Your task to perform on an android device: open app "Reddit" (install if not already installed), go to login, and select forgot password Image 0: 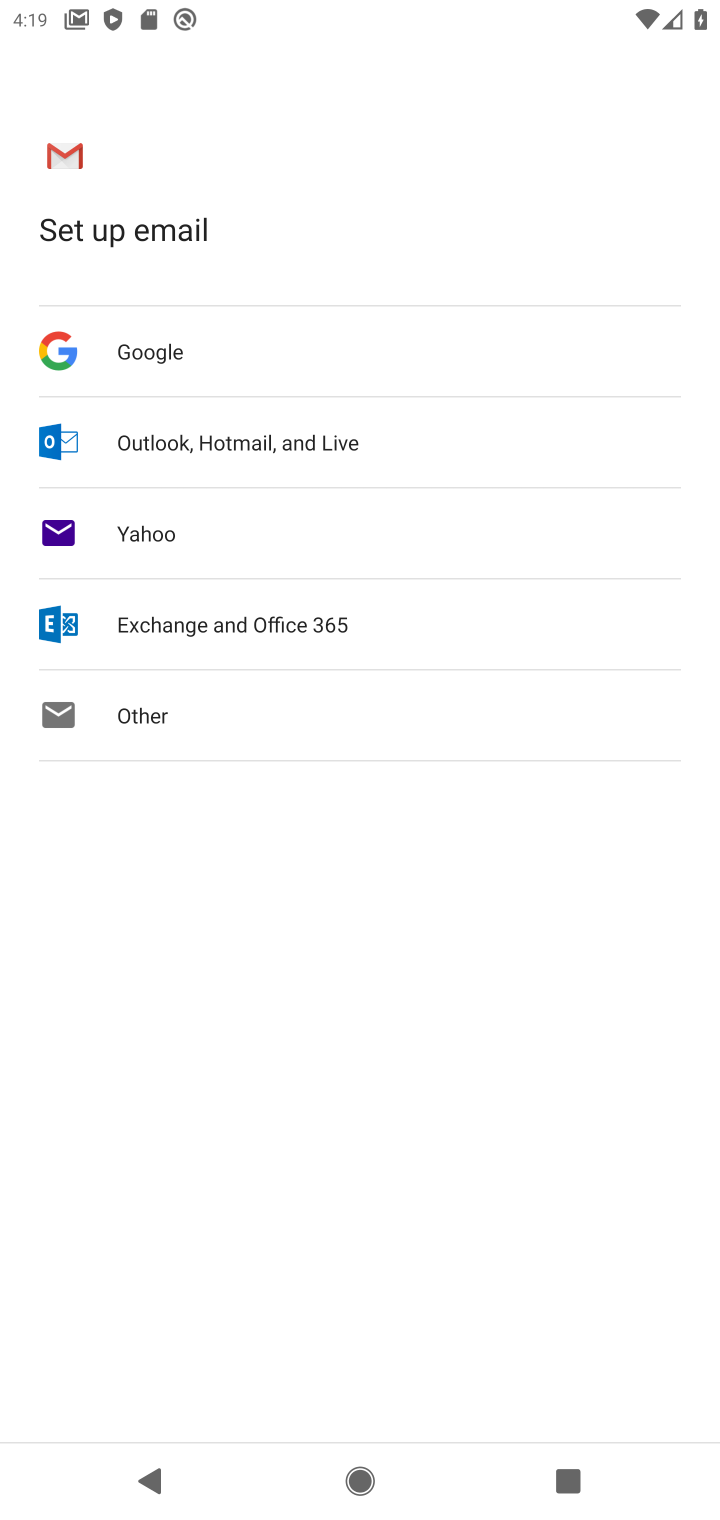
Step 0: press home button
Your task to perform on an android device: open app "Reddit" (install if not already installed), go to login, and select forgot password Image 1: 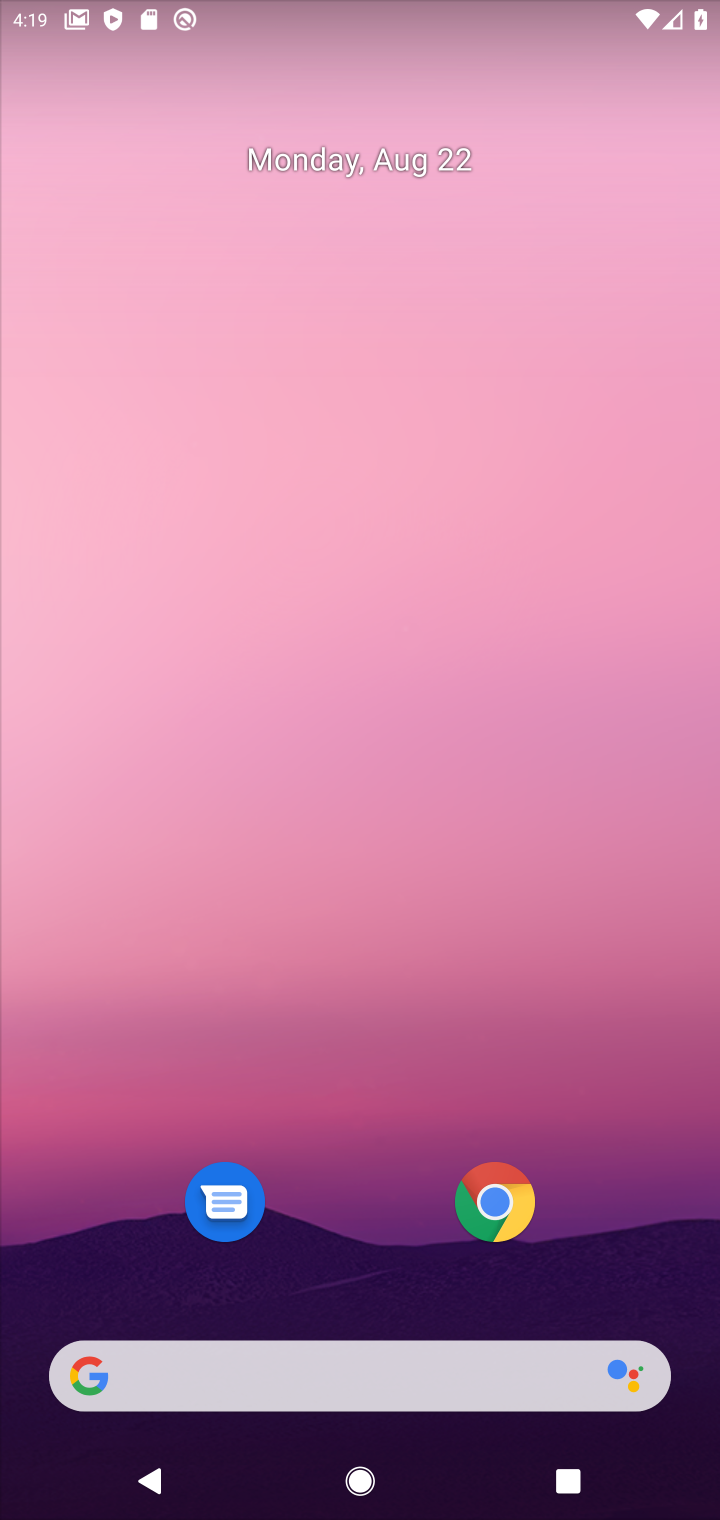
Step 1: drag from (325, 1260) to (438, 198)
Your task to perform on an android device: open app "Reddit" (install if not already installed), go to login, and select forgot password Image 2: 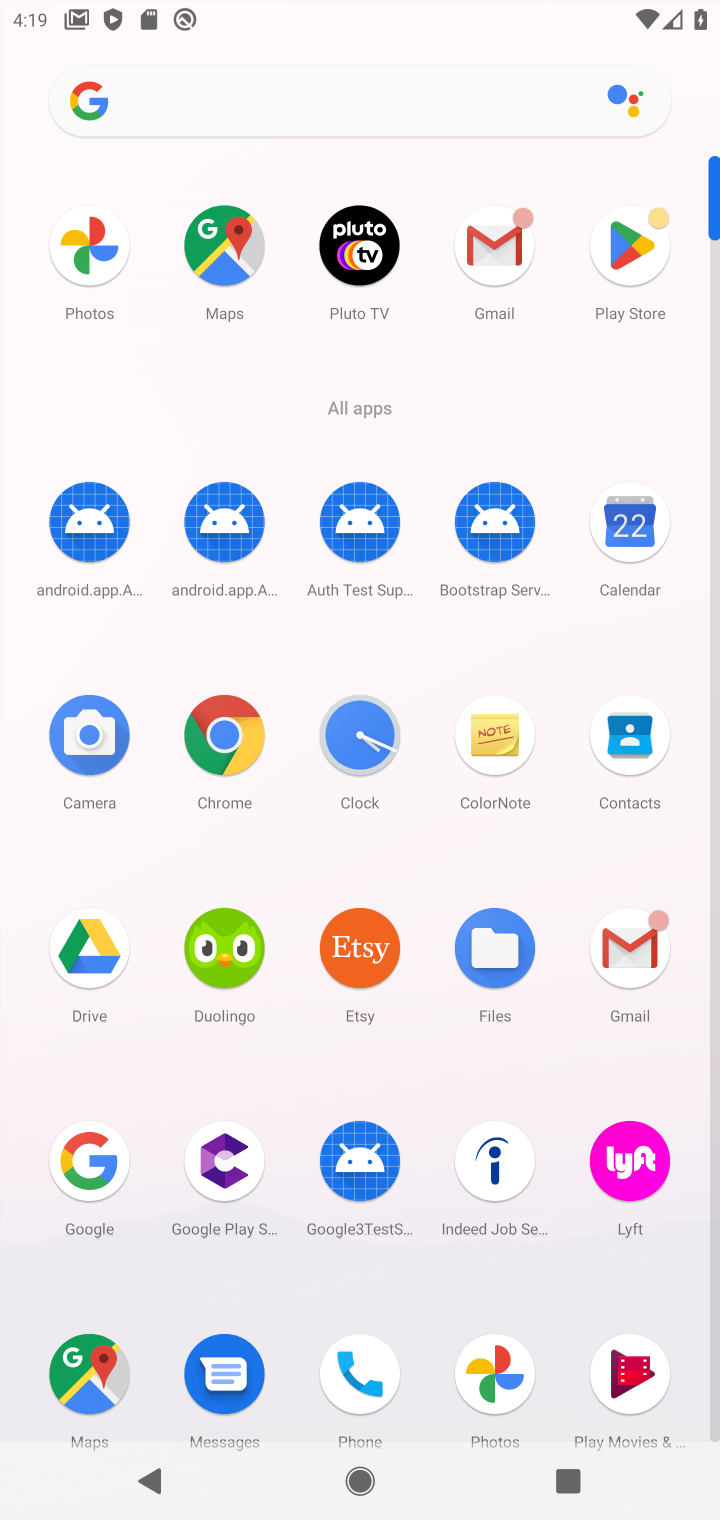
Step 2: click (620, 257)
Your task to perform on an android device: open app "Reddit" (install if not already installed), go to login, and select forgot password Image 3: 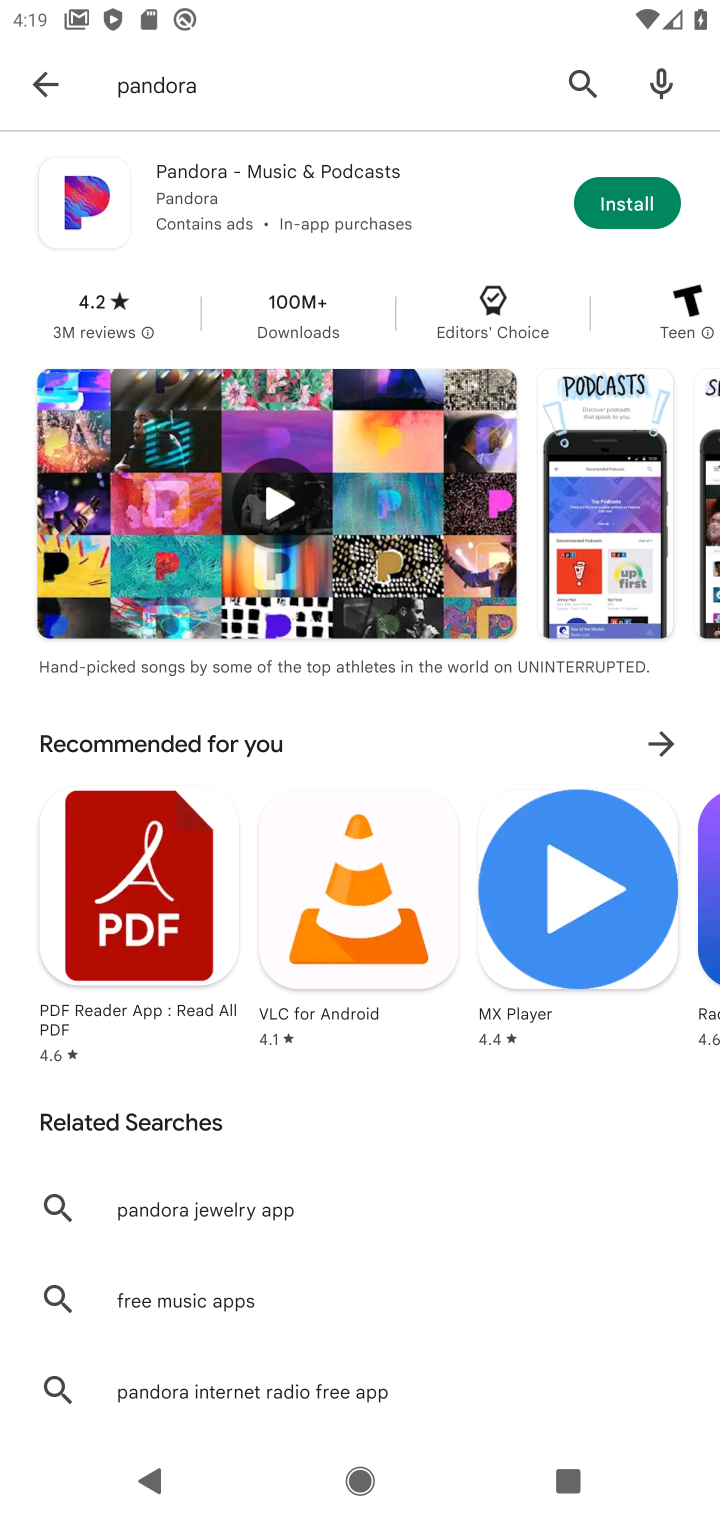
Step 3: click (351, 111)
Your task to perform on an android device: open app "Reddit" (install if not already installed), go to login, and select forgot password Image 4: 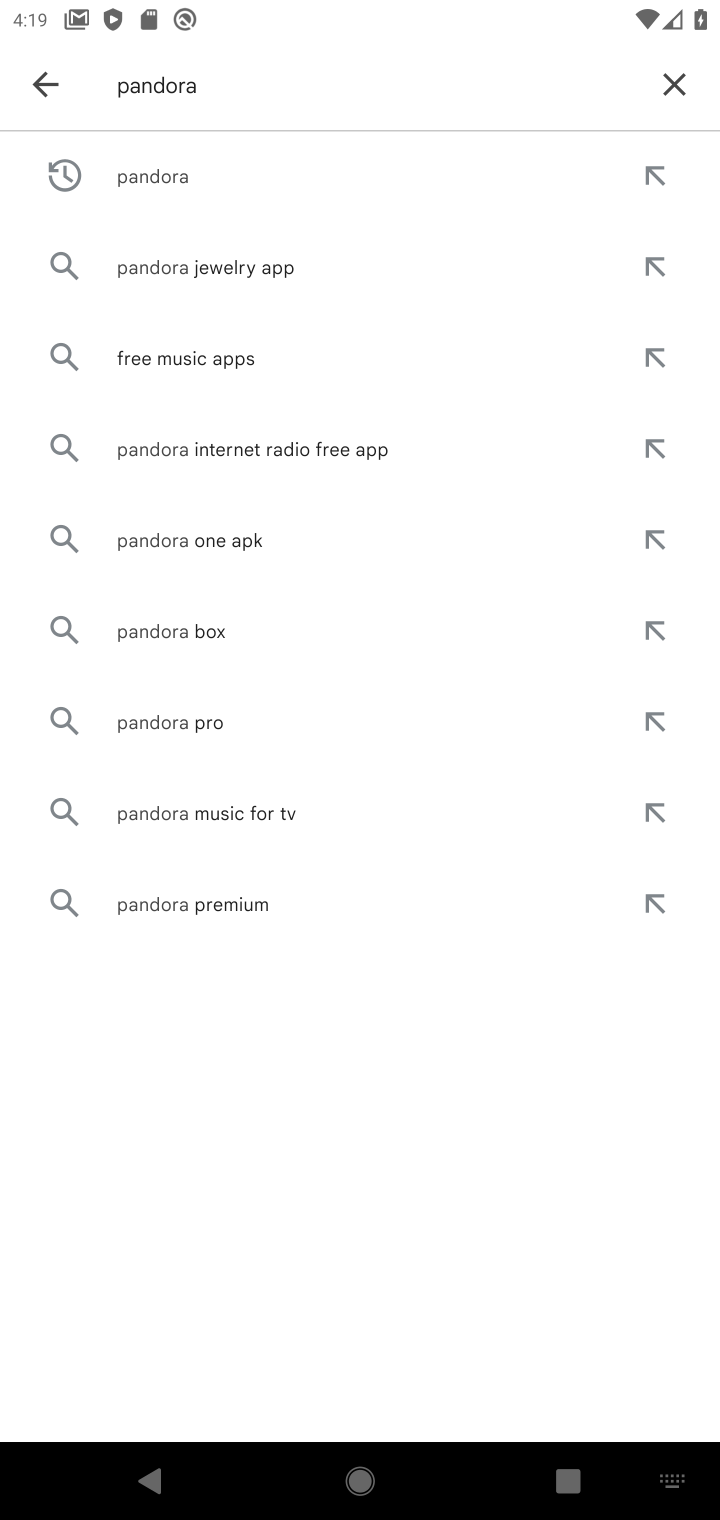
Step 4: click (666, 83)
Your task to perform on an android device: open app "Reddit" (install if not already installed), go to login, and select forgot password Image 5: 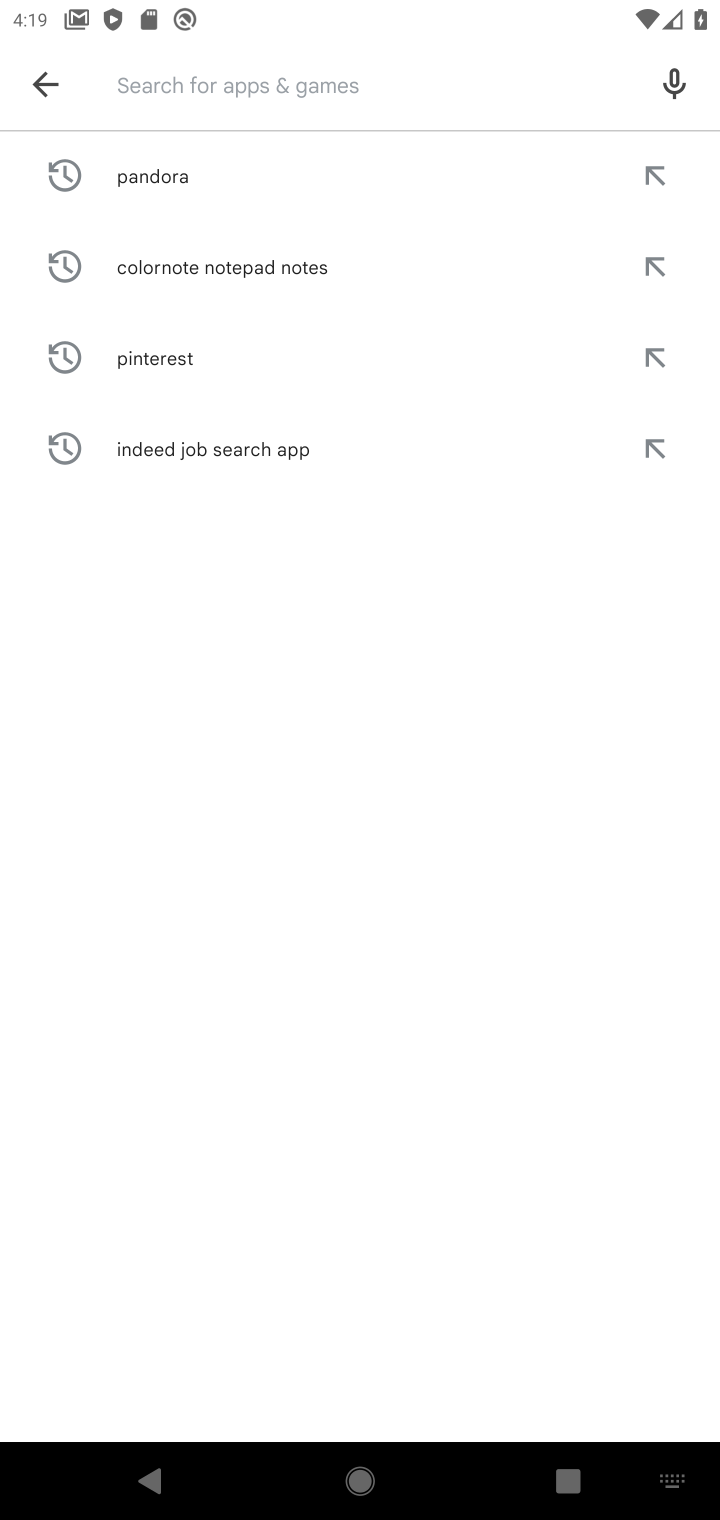
Step 5: type "Reddit"
Your task to perform on an android device: open app "Reddit" (install if not already installed), go to login, and select forgot password Image 6: 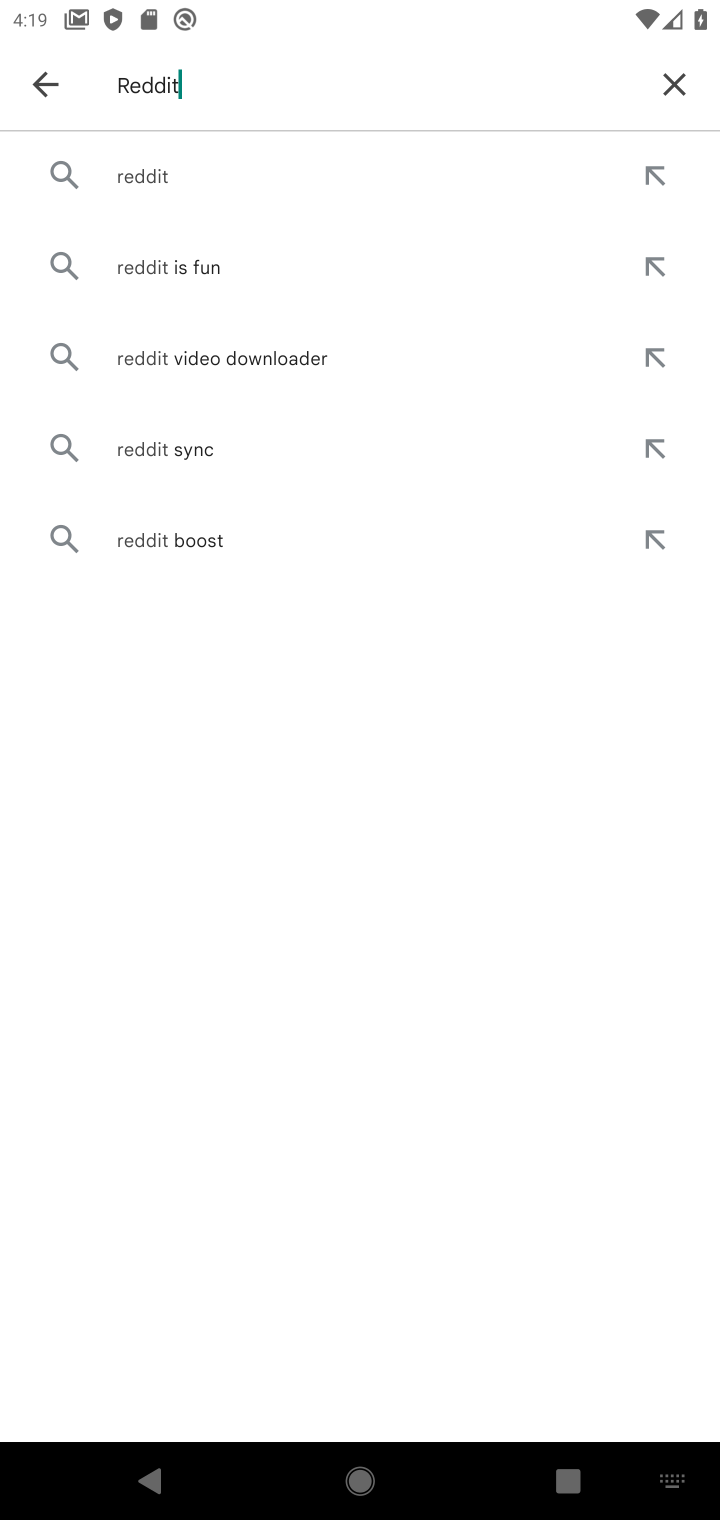
Step 6: click (191, 176)
Your task to perform on an android device: open app "Reddit" (install if not already installed), go to login, and select forgot password Image 7: 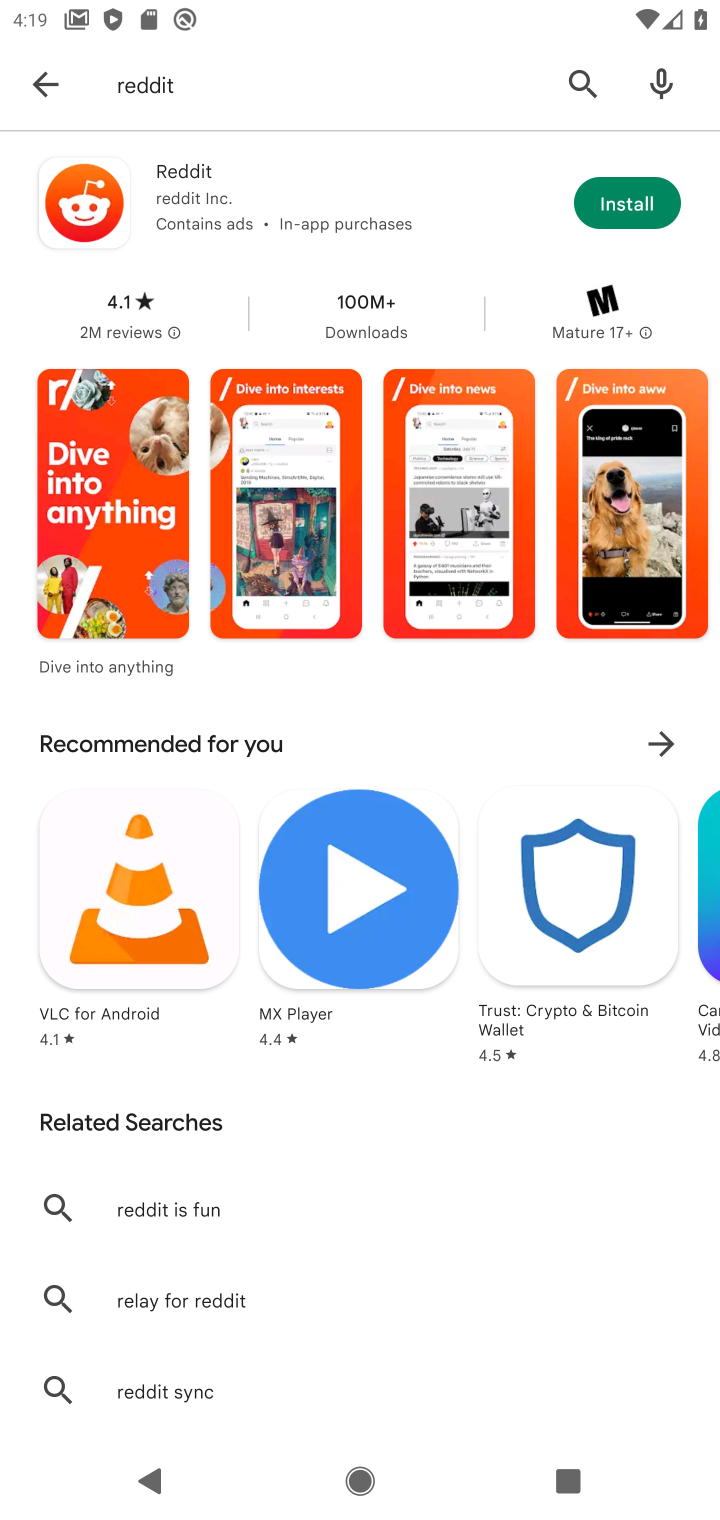
Step 7: click (621, 212)
Your task to perform on an android device: open app "Reddit" (install if not already installed), go to login, and select forgot password Image 8: 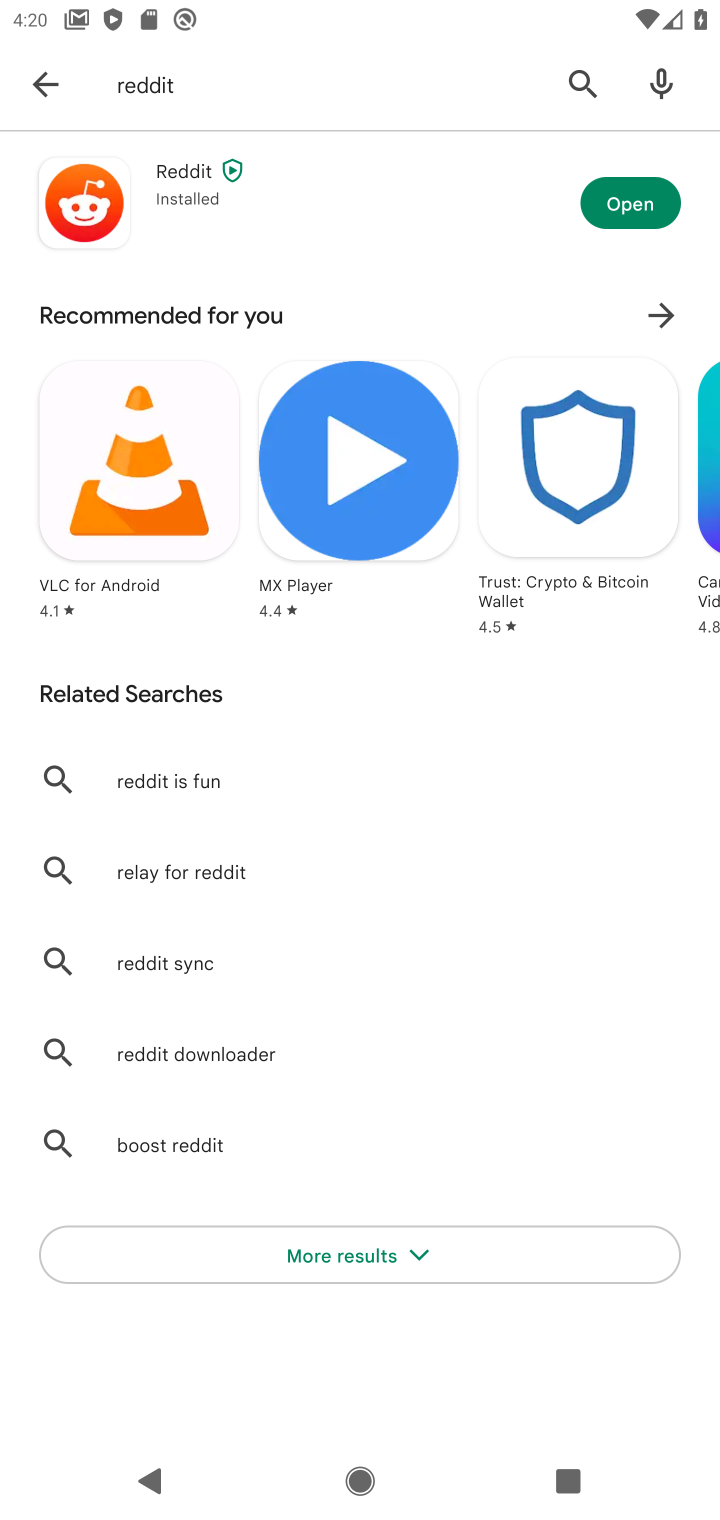
Step 8: click (641, 202)
Your task to perform on an android device: open app "Reddit" (install if not already installed), go to login, and select forgot password Image 9: 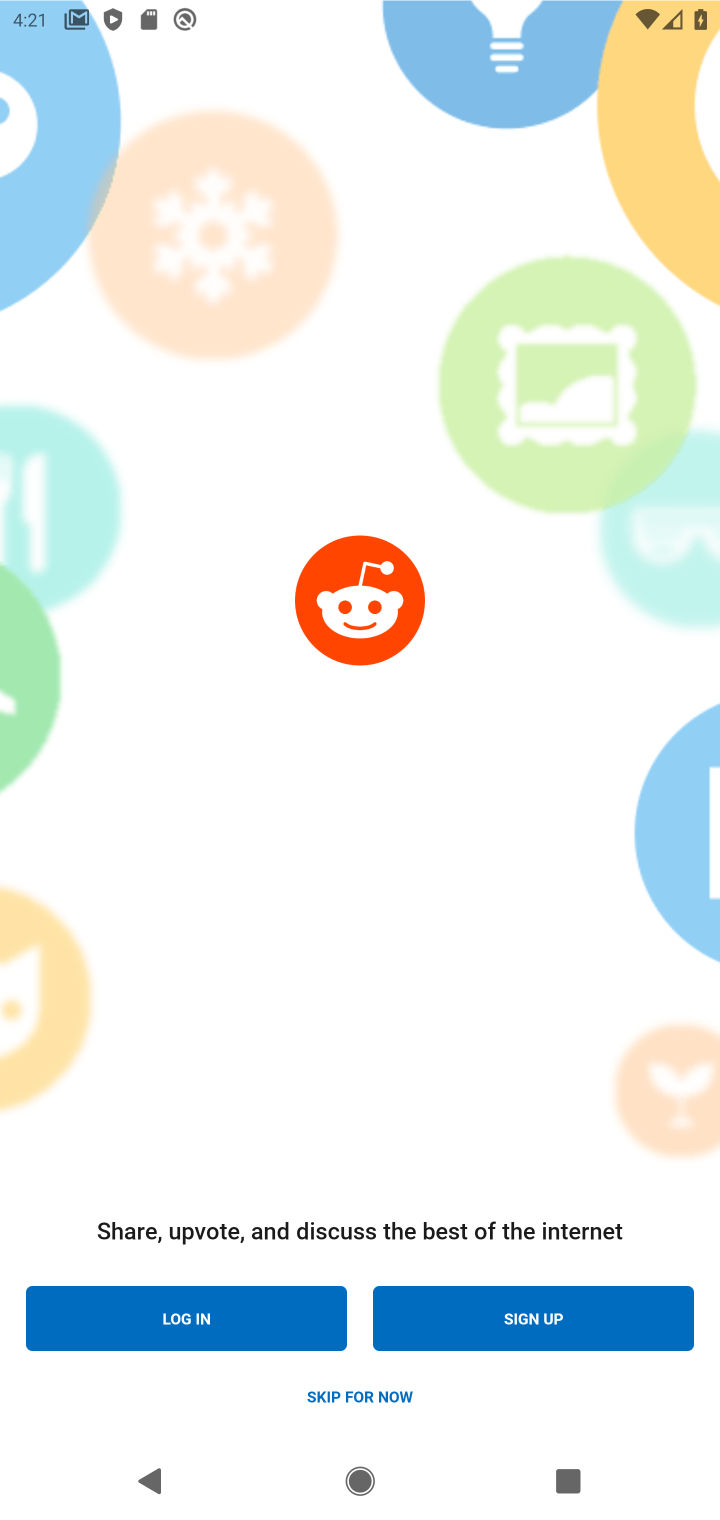
Step 9: click (234, 1328)
Your task to perform on an android device: open app "Reddit" (install if not already installed), go to login, and select forgot password Image 10: 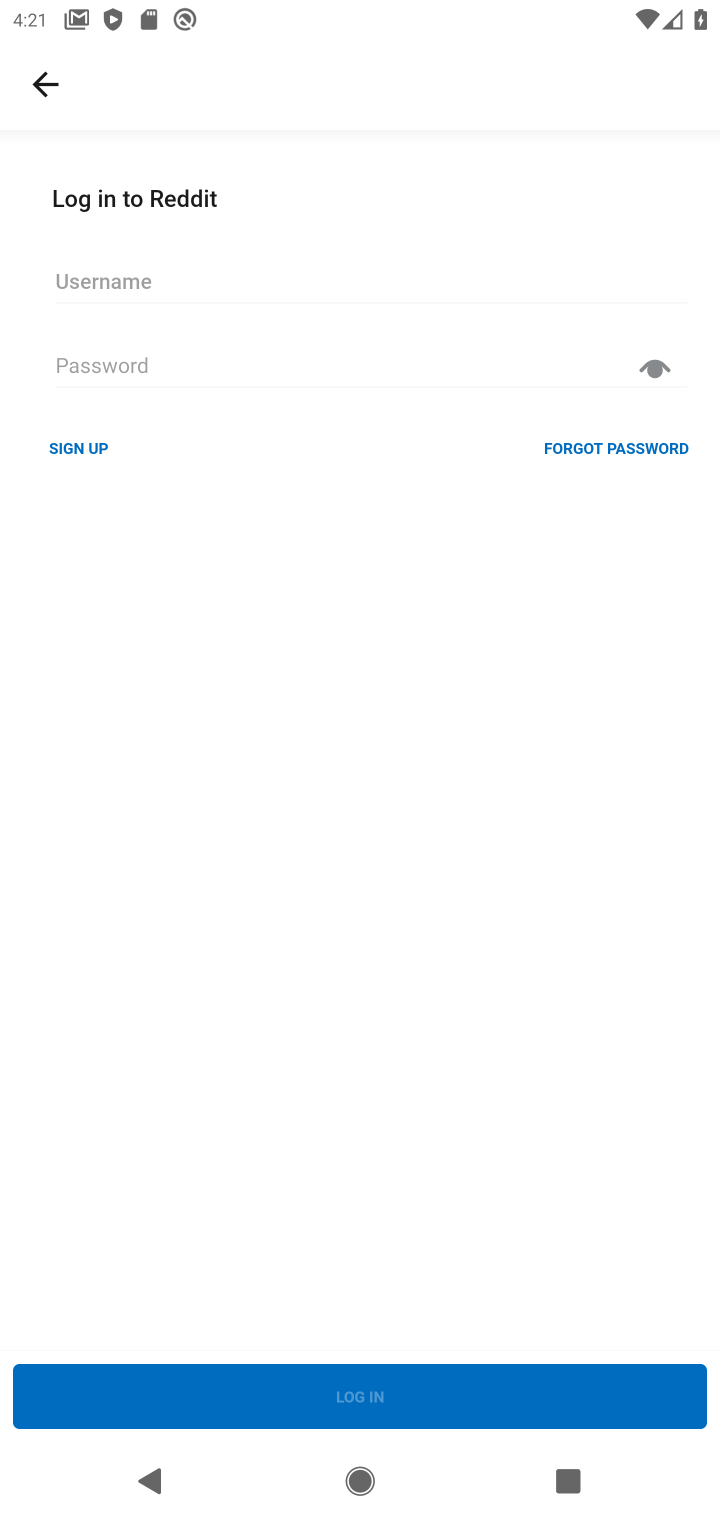
Step 10: click (621, 442)
Your task to perform on an android device: open app "Reddit" (install if not already installed), go to login, and select forgot password Image 11: 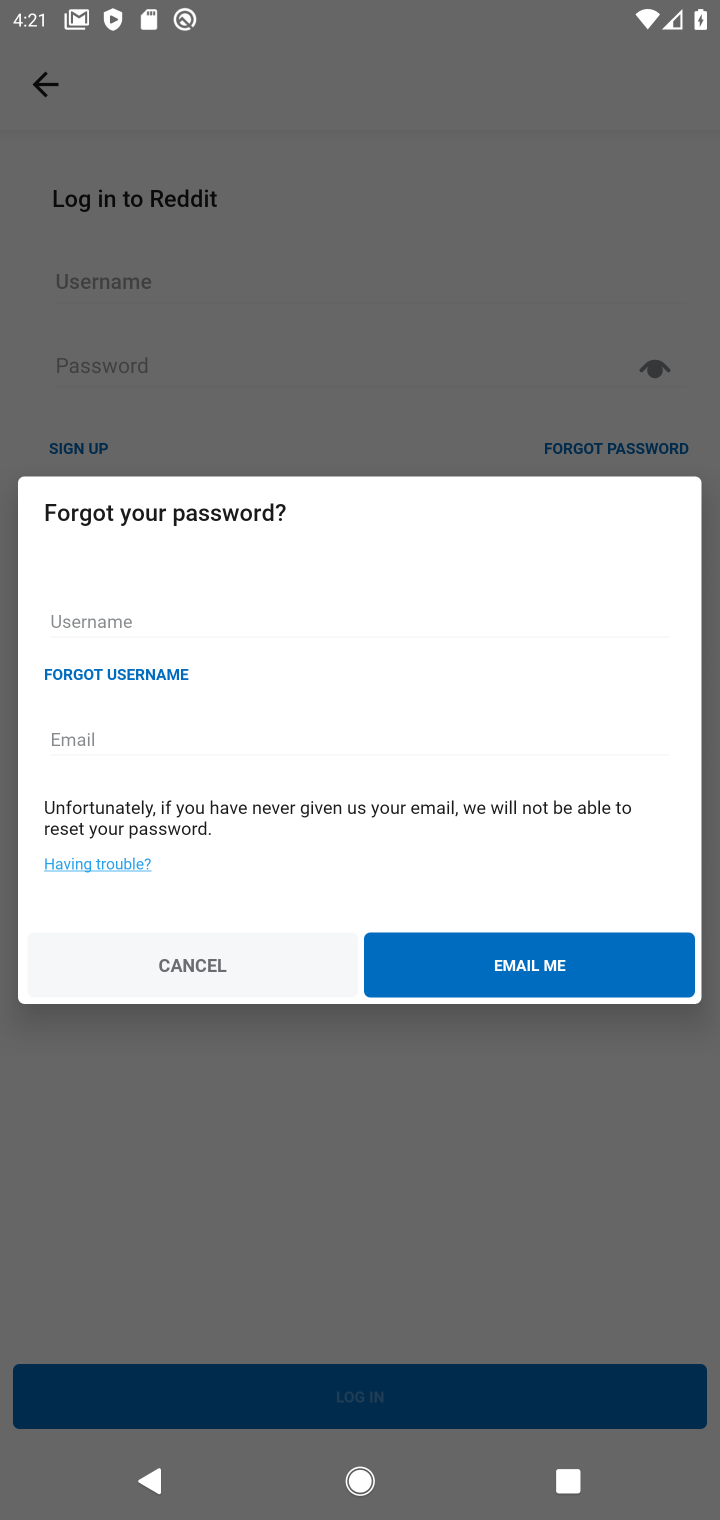
Step 11: task complete